Your task to perform on an android device: turn pop-ups off in chrome Image 0: 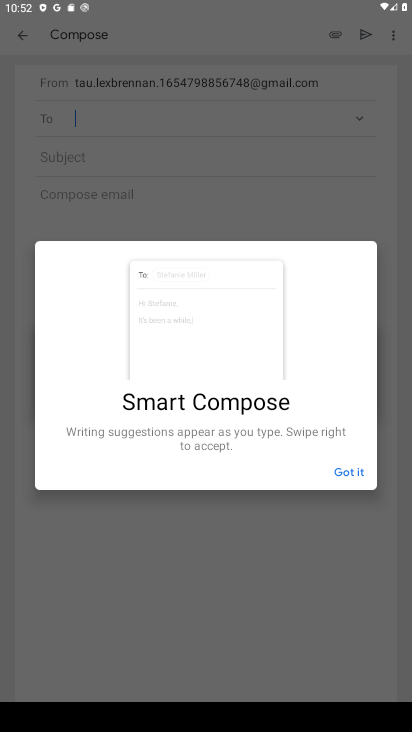
Step 0: press home button
Your task to perform on an android device: turn pop-ups off in chrome Image 1: 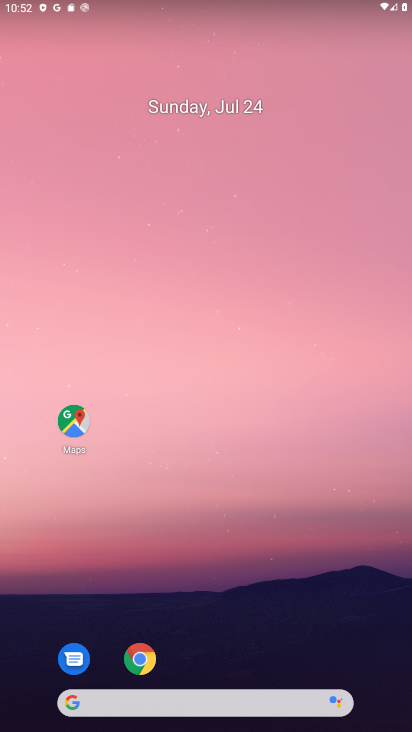
Step 1: drag from (261, 655) to (226, 62)
Your task to perform on an android device: turn pop-ups off in chrome Image 2: 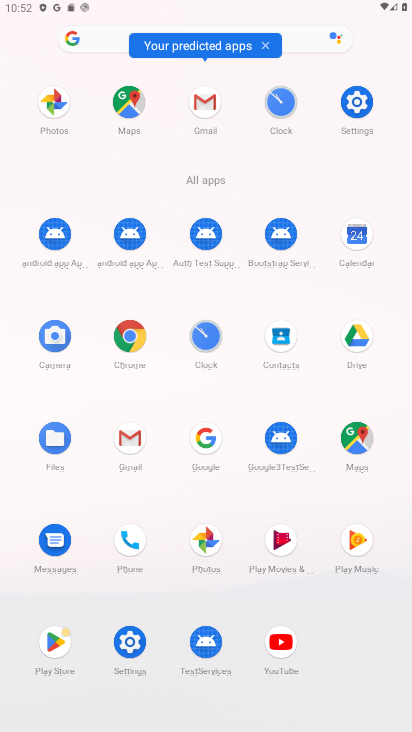
Step 2: click (123, 352)
Your task to perform on an android device: turn pop-ups off in chrome Image 3: 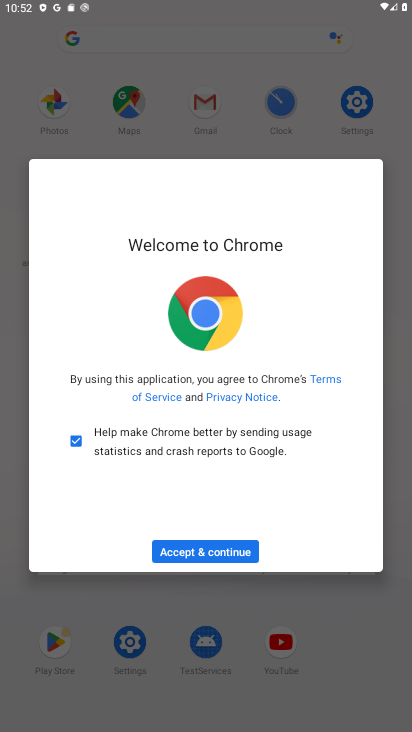
Step 3: click (213, 549)
Your task to perform on an android device: turn pop-ups off in chrome Image 4: 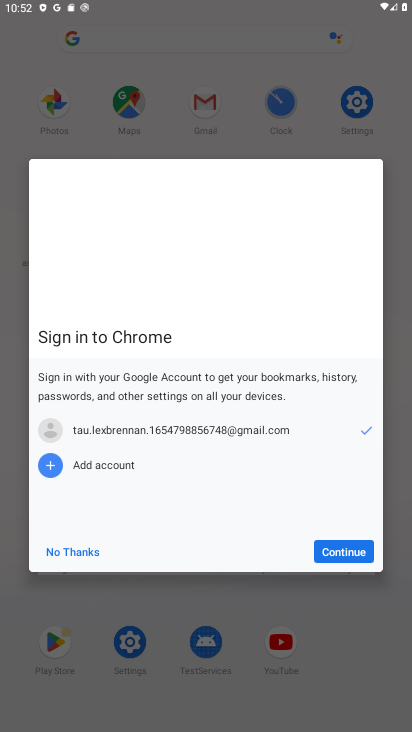
Step 4: click (342, 552)
Your task to perform on an android device: turn pop-ups off in chrome Image 5: 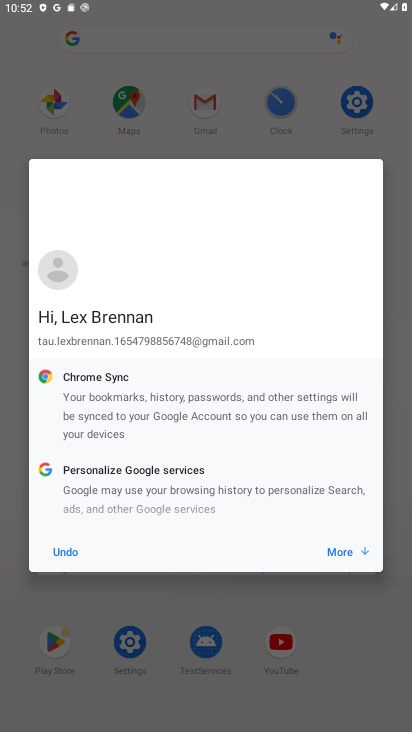
Step 5: click (342, 552)
Your task to perform on an android device: turn pop-ups off in chrome Image 6: 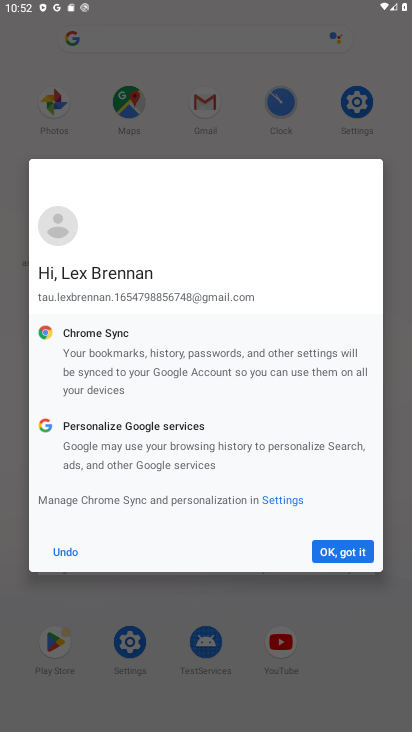
Step 6: click (342, 552)
Your task to perform on an android device: turn pop-ups off in chrome Image 7: 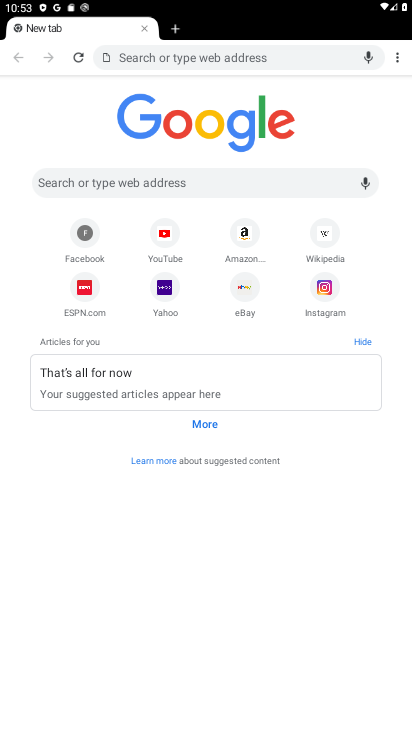
Step 7: click (393, 64)
Your task to perform on an android device: turn pop-ups off in chrome Image 8: 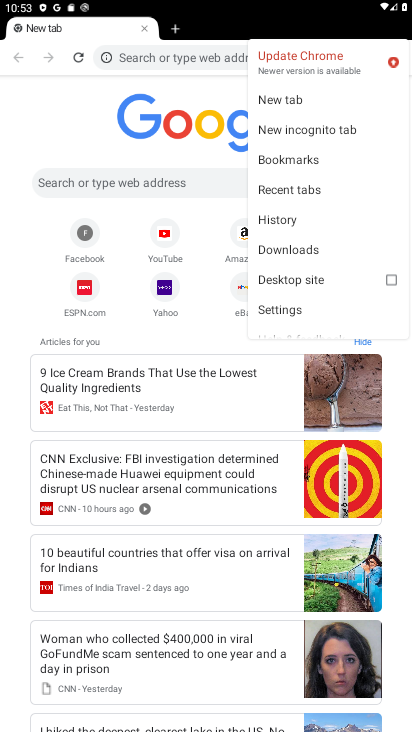
Step 8: click (276, 313)
Your task to perform on an android device: turn pop-ups off in chrome Image 9: 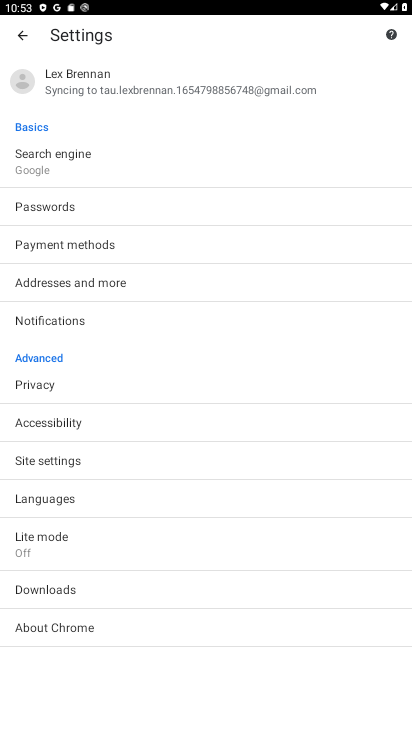
Step 9: click (78, 461)
Your task to perform on an android device: turn pop-ups off in chrome Image 10: 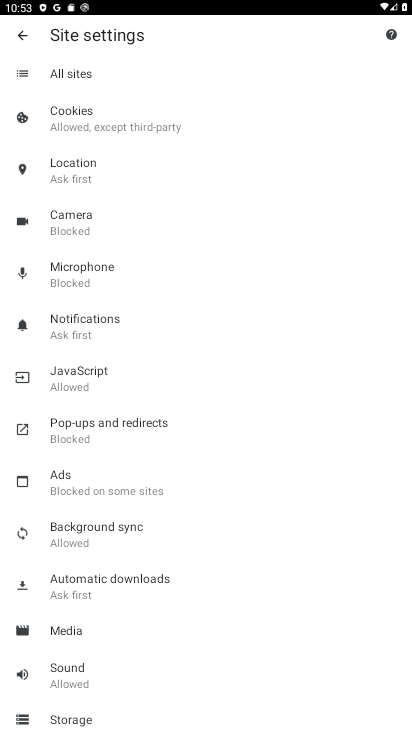
Step 10: click (101, 435)
Your task to perform on an android device: turn pop-ups off in chrome Image 11: 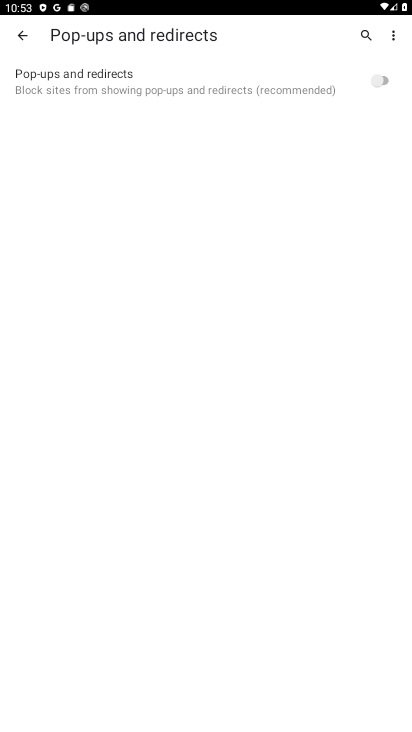
Step 11: task complete